Your task to perform on an android device: toggle show notifications on the lock screen Image 0: 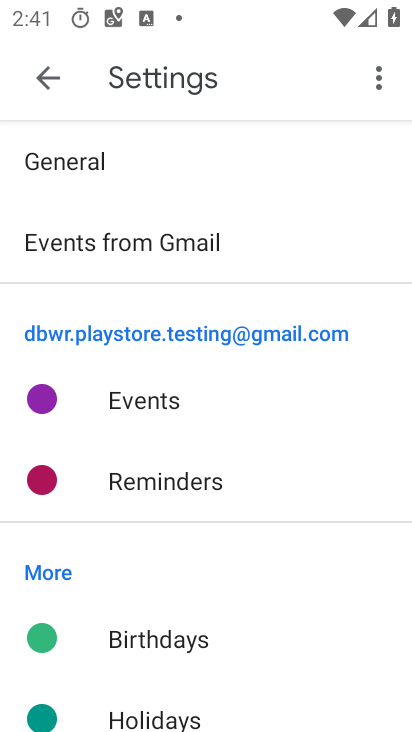
Step 0: press home button
Your task to perform on an android device: toggle show notifications on the lock screen Image 1: 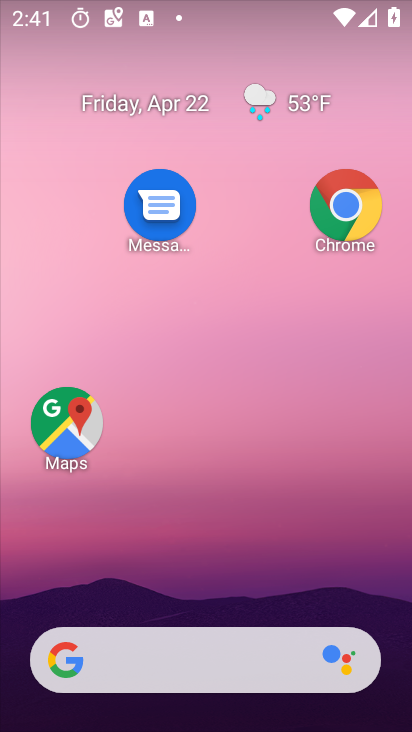
Step 1: drag from (165, 544) to (186, 79)
Your task to perform on an android device: toggle show notifications on the lock screen Image 2: 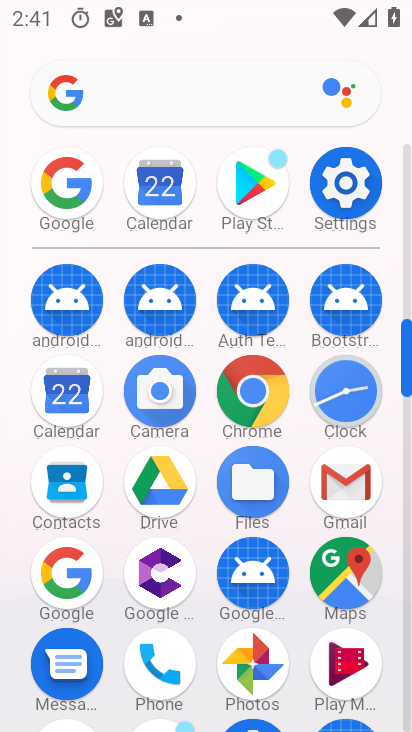
Step 2: click (344, 188)
Your task to perform on an android device: toggle show notifications on the lock screen Image 3: 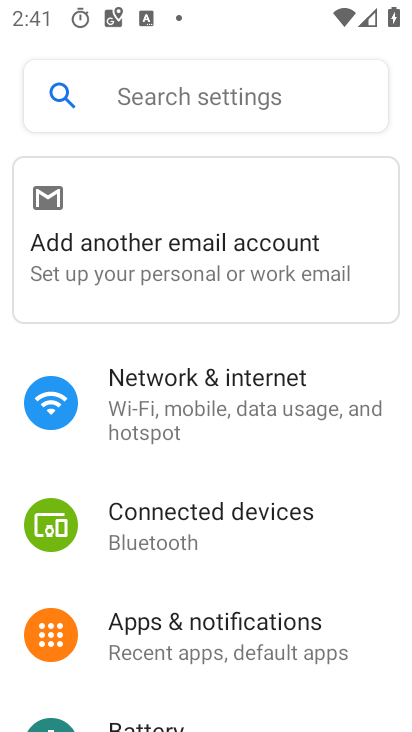
Step 3: click (207, 609)
Your task to perform on an android device: toggle show notifications on the lock screen Image 4: 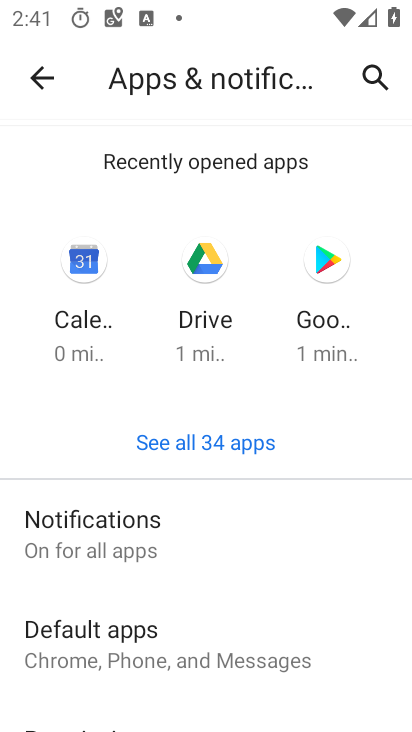
Step 4: click (108, 534)
Your task to perform on an android device: toggle show notifications on the lock screen Image 5: 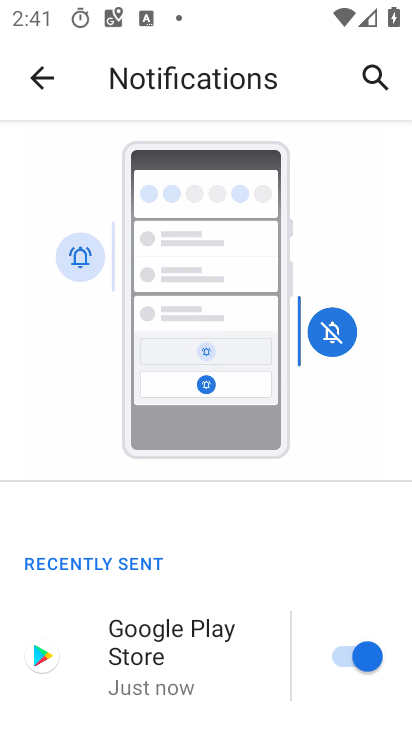
Step 5: drag from (307, 682) to (392, 218)
Your task to perform on an android device: toggle show notifications on the lock screen Image 6: 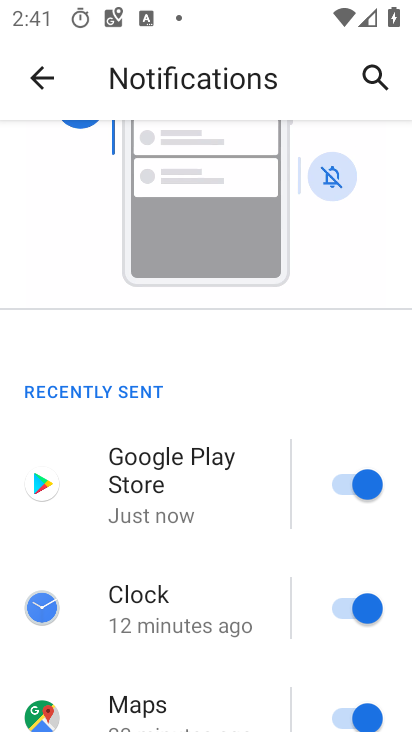
Step 6: drag from (297, 640) to (288, 244)
Your task to perform on an android device: toggle show notifications on the lock screen Image 7: 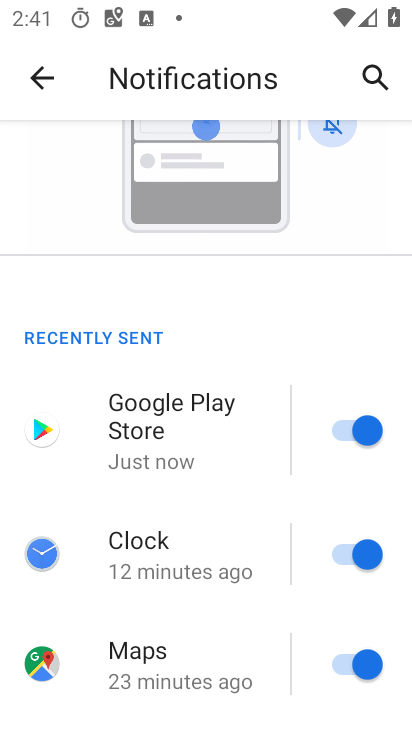
Step 7: drag from (310, 598) to (301, 232)
Your task to perform on an android device: toggle show notifications on the lock screen Image 8: 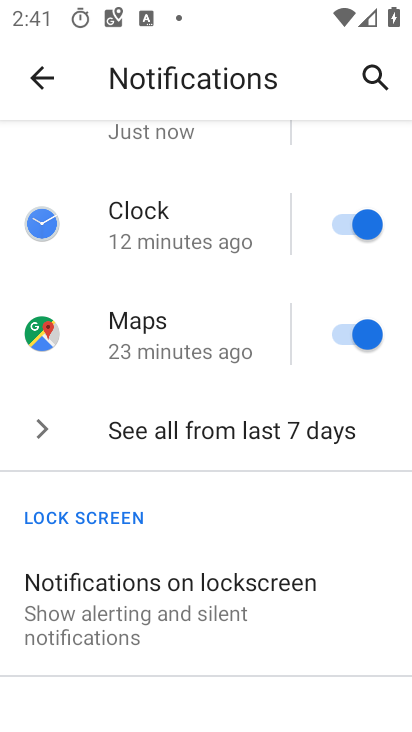
Step 8: click (173, 589)
Your task to perform on an android device: toggle show notifications on the lock screen Image 9: 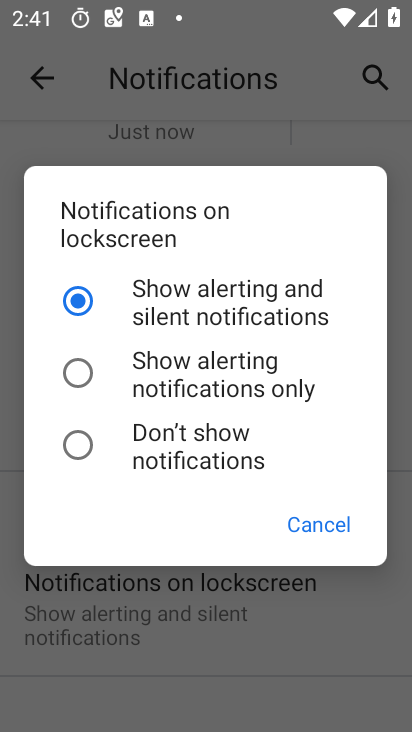
Step 9: click (79, 442)
Your task to perform on an android device: toggle show notifications on the lock screen Image 10: 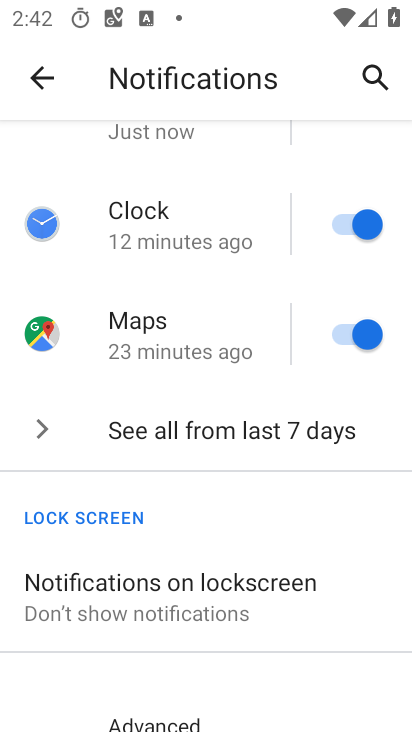
Step 10: task complete